Your task to perform on an android device: turn off notifications settings in the gmail app Image 0: 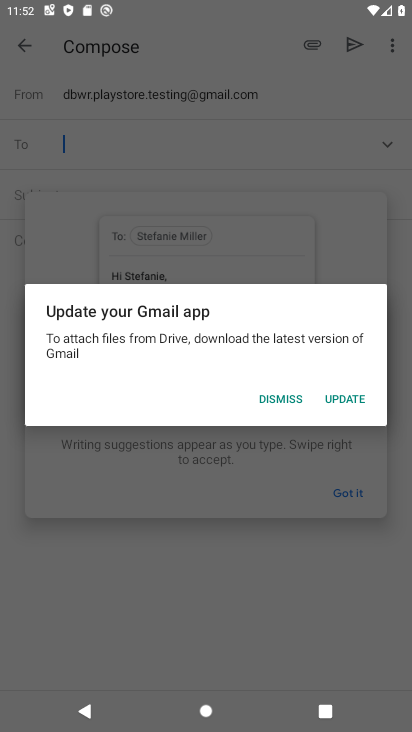
Step 0: press home button
Your task to perform on an android device: turn off notifications settings in the gmail app Image 1: 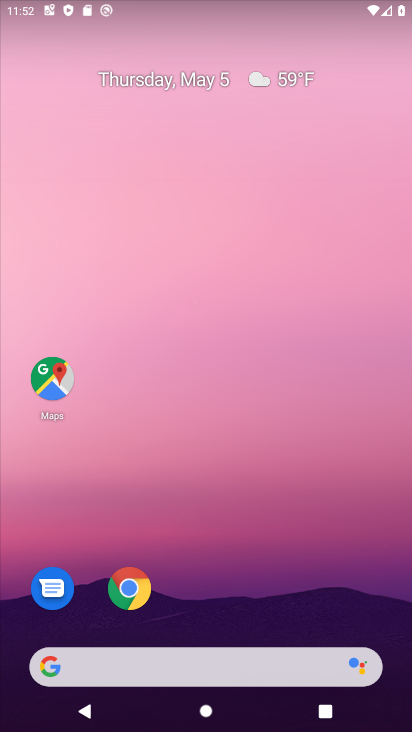
Step 1: drag from (280, 582) to (240, 44)
Your task to perform on an android device: turn off notifications settings in the gmail app Image 2: 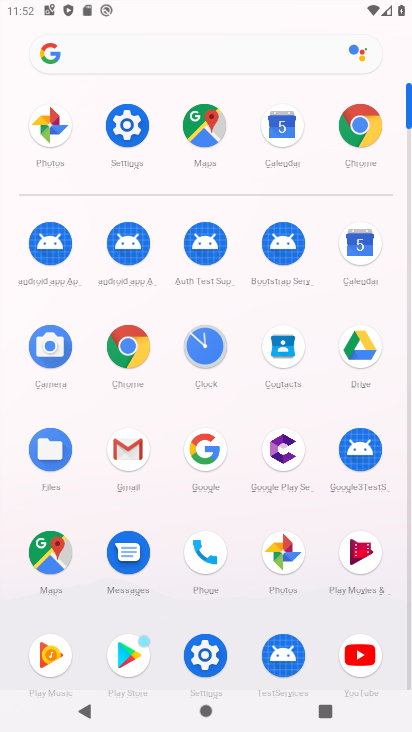
Step 2: click (132, 447)
Your task to perform on an android device: turn off notifications settings in the gmail app Image 3: 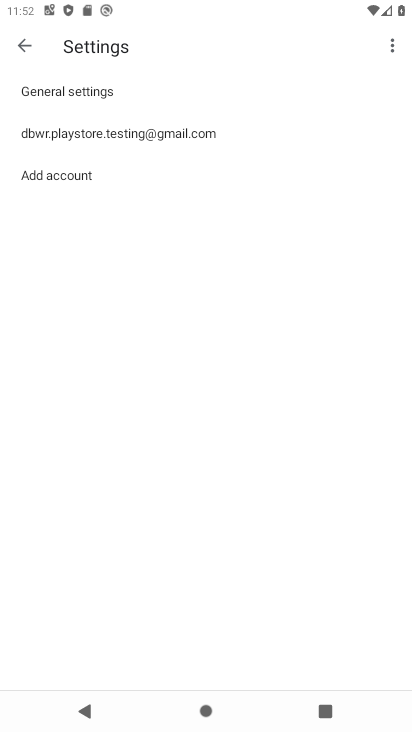
Step 3: click (92, 86)
Your task to perform on an android device: turn off notifications settings in the gmail app Image 4: 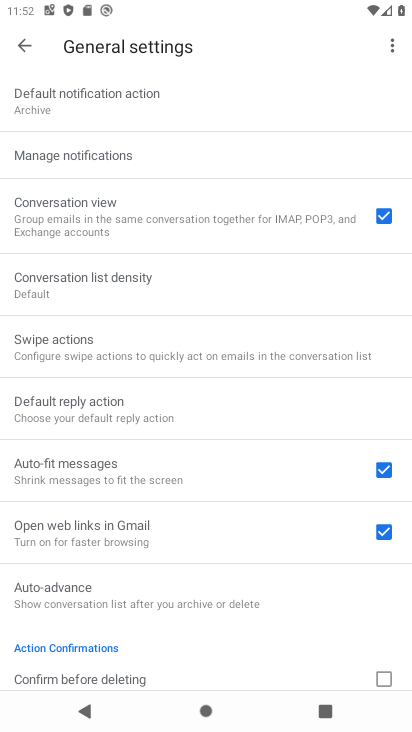
Step 4: click (254, 153)
Your task to perform on an android device: turn off notifications settings in the gmail app Image 5: 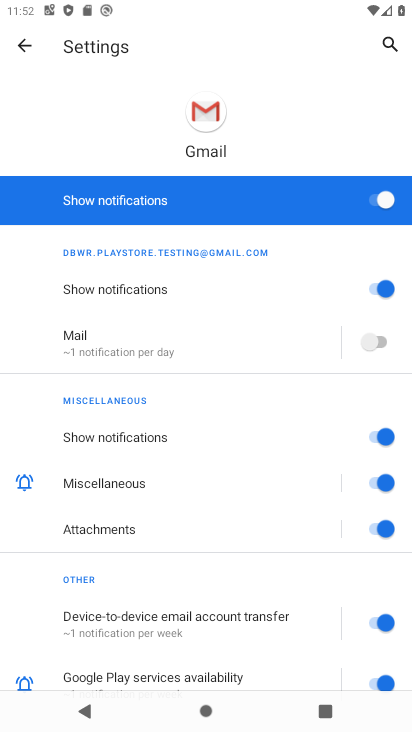
Step 5: click (377, 203)
Your task to perform on an android device: turn off notifications settings in the gmail app Image 6: 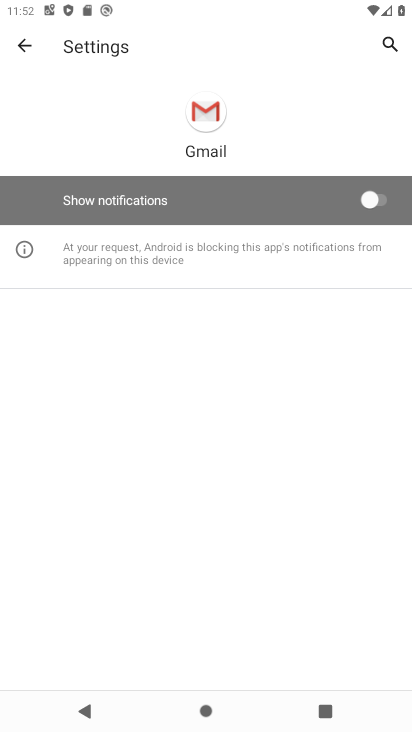
Step 6: task complete